Your task to perform on an android device: Show me recent news Image 0: 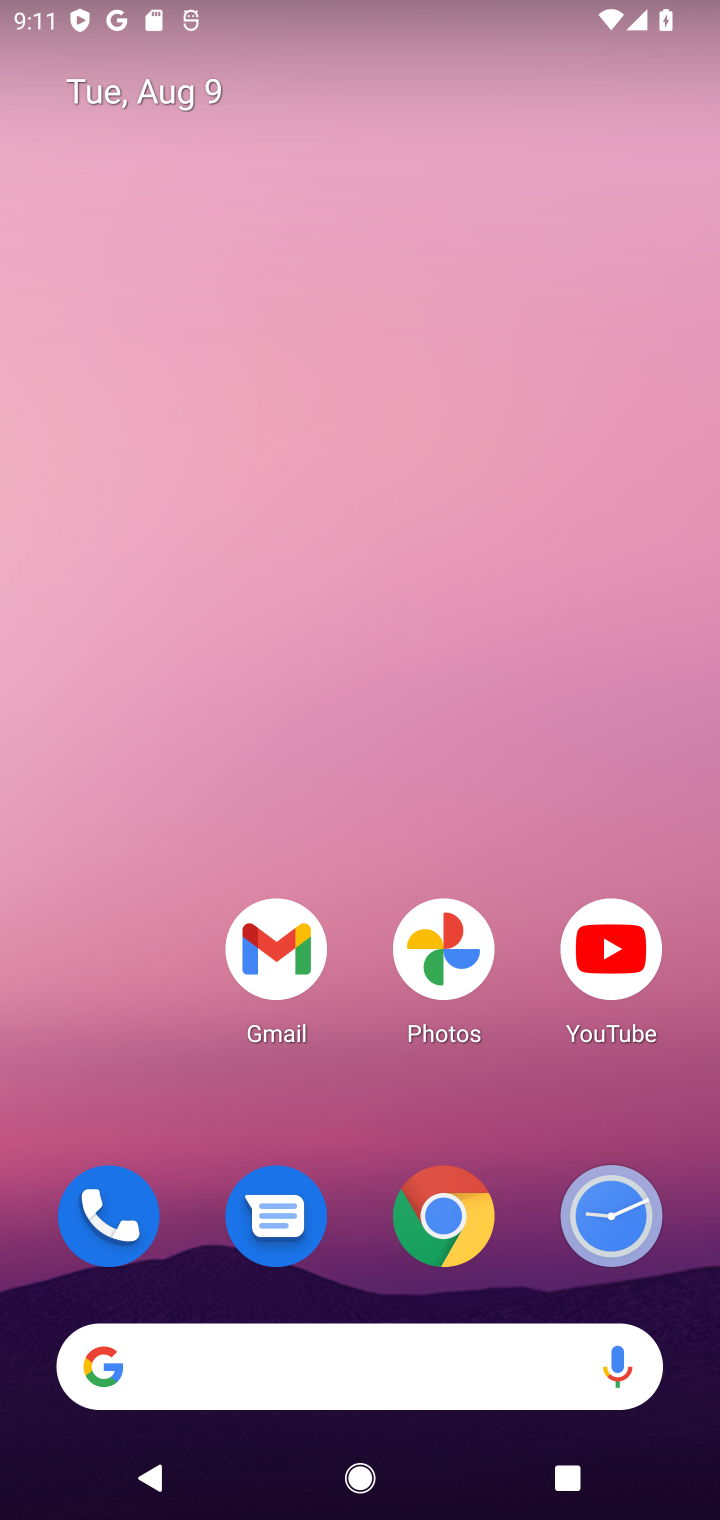
Step 0: drag from (353, 947) to (322, 643)
Your task to perform on an android device: Show me recent news Image 1: 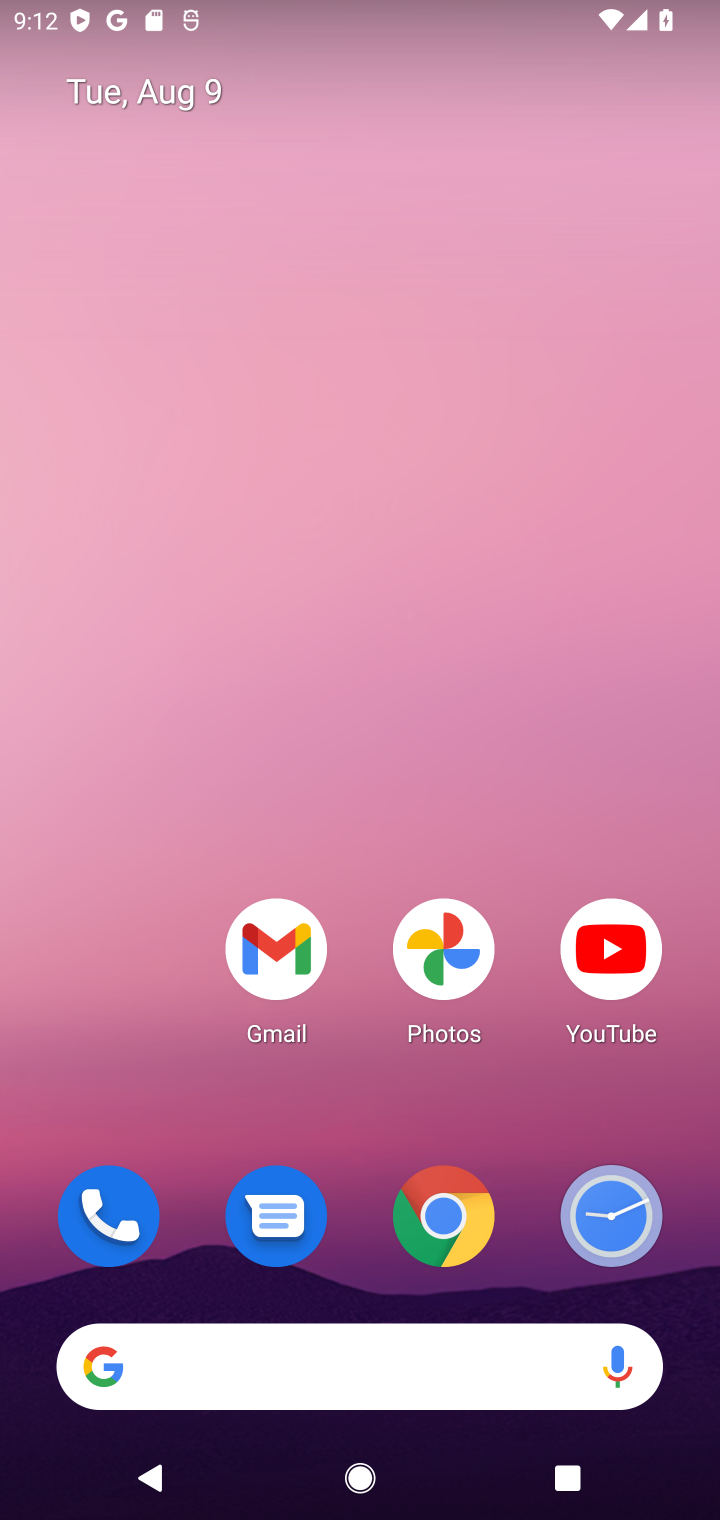
Step 1: drag from (252, 1135) to (230, 693)
Your task to perform on an android device: Show me recent news Image 2: 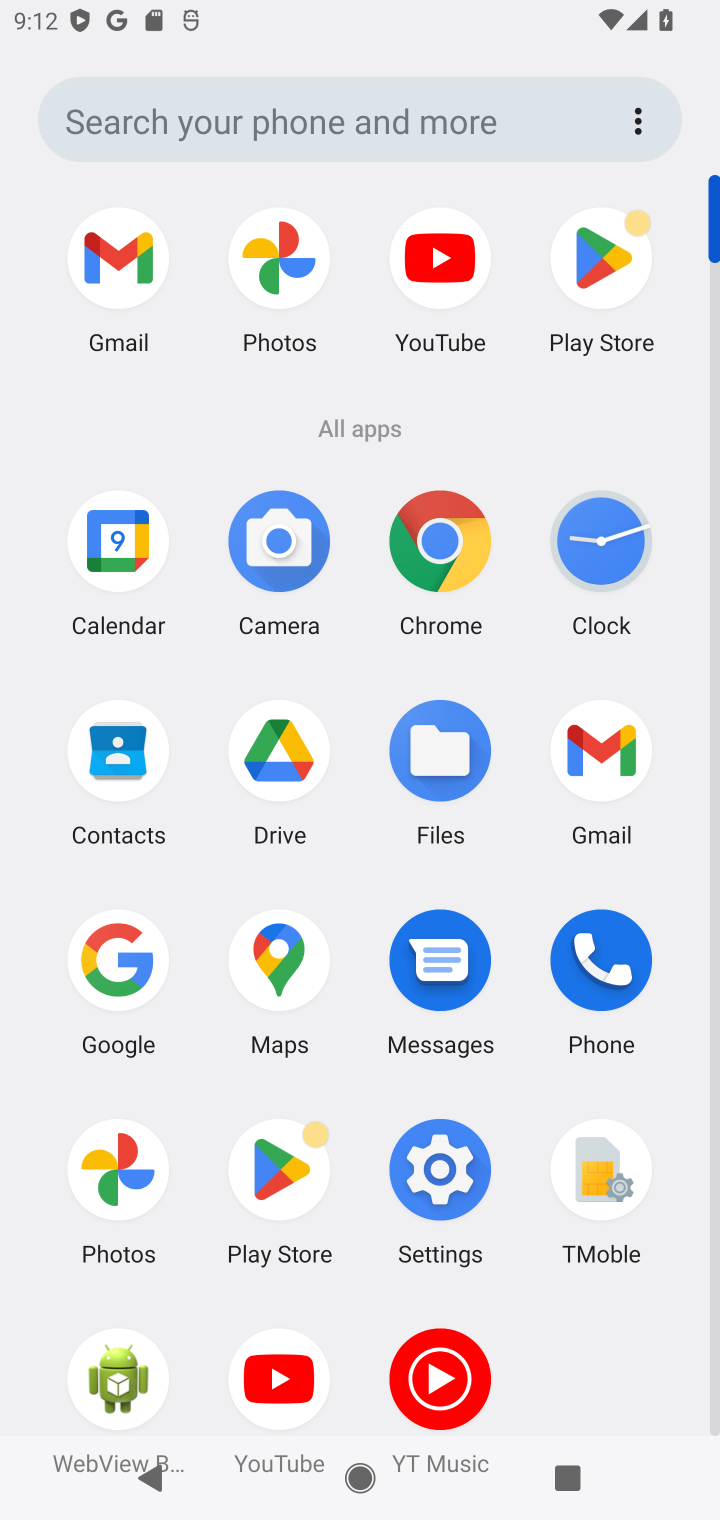
Step 2: click (104, 950)
Your task to perform on an android device: Show me recent news Image 3: 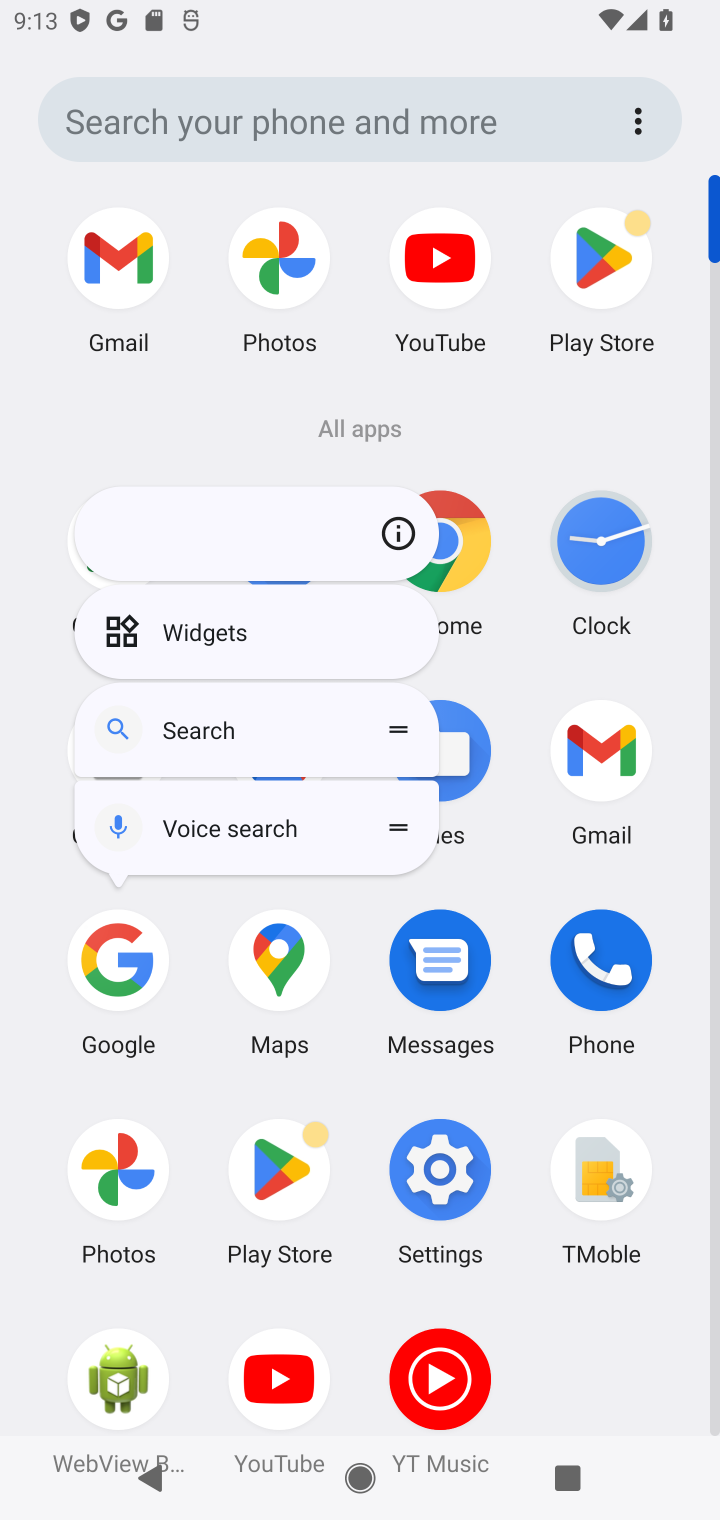
Step 3: click (117, 980)
Your task to perform on an android device: Show me recent news Image 4: 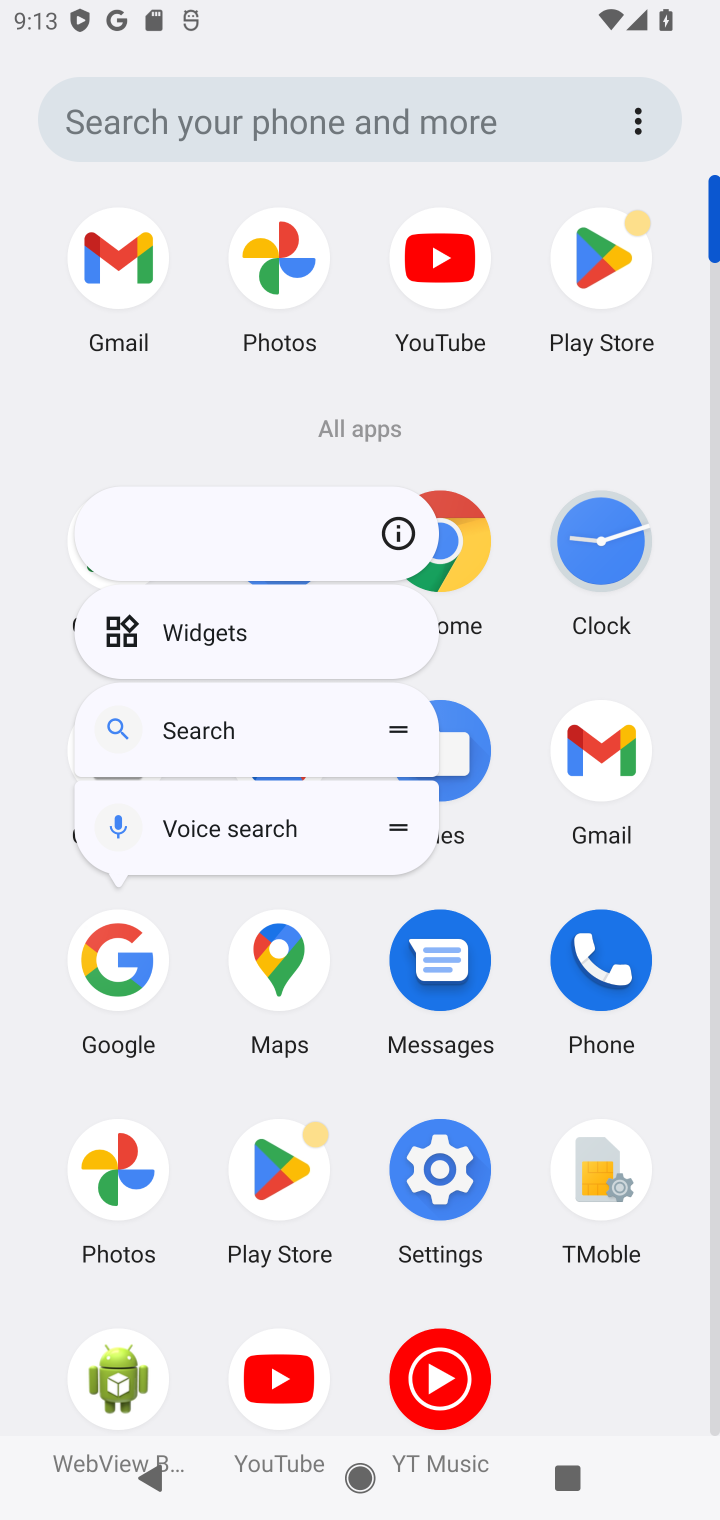
Step 4: click (115, 952)
Your task to perform on an android device: Show me recent news Image 5: 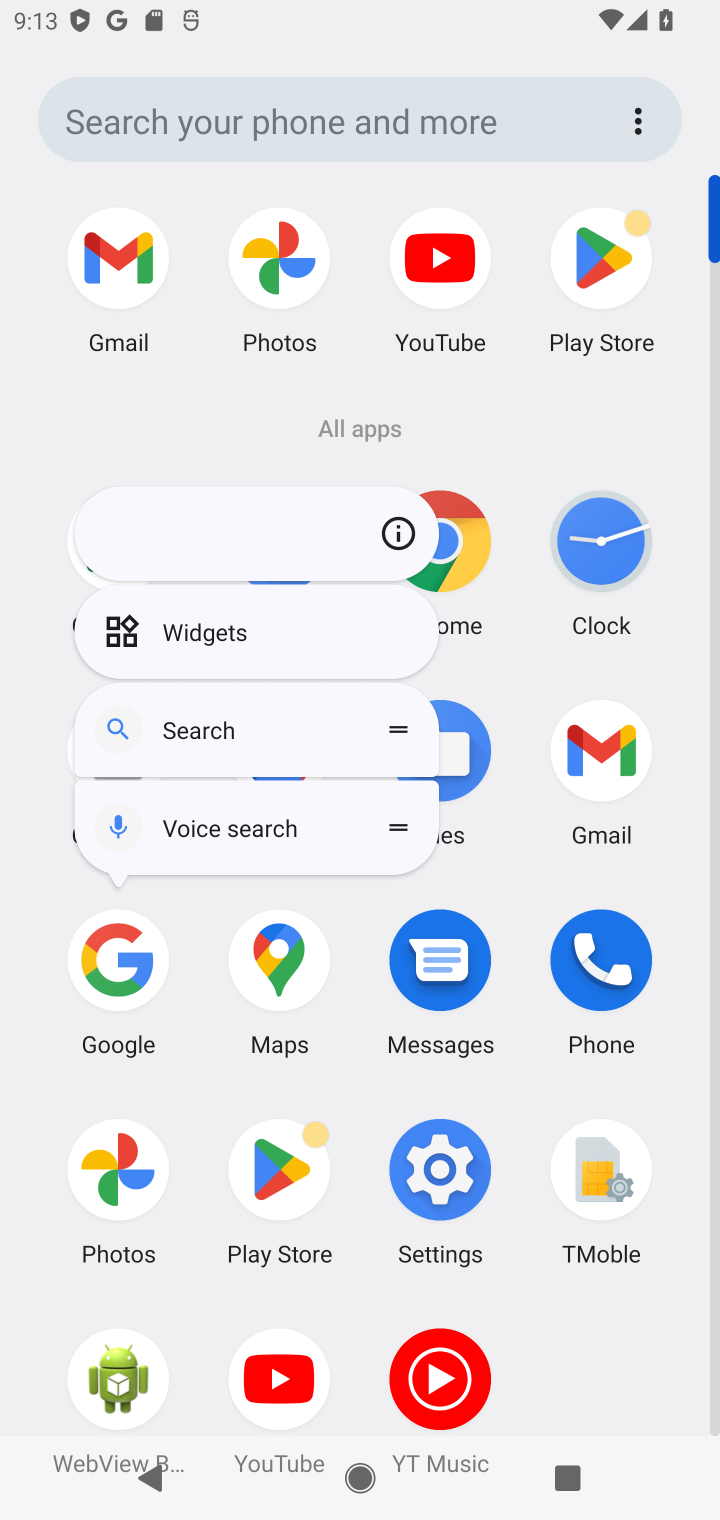
Step 5: click (115, 952)
Your task to perform on an android device: Show me recent news Image 6: 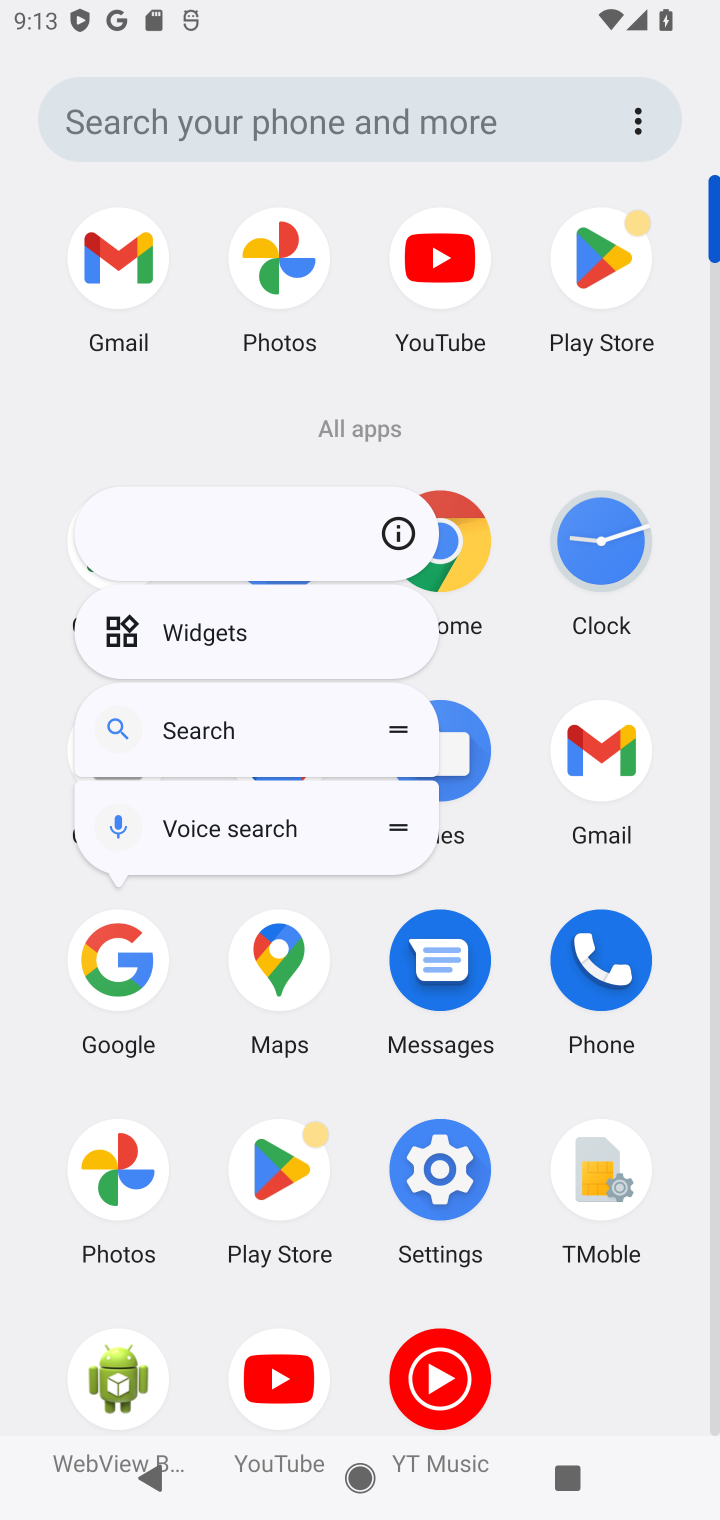
Step 6: click (115, 952)
Your task to perform on an android device: Show me recent news Image 7: 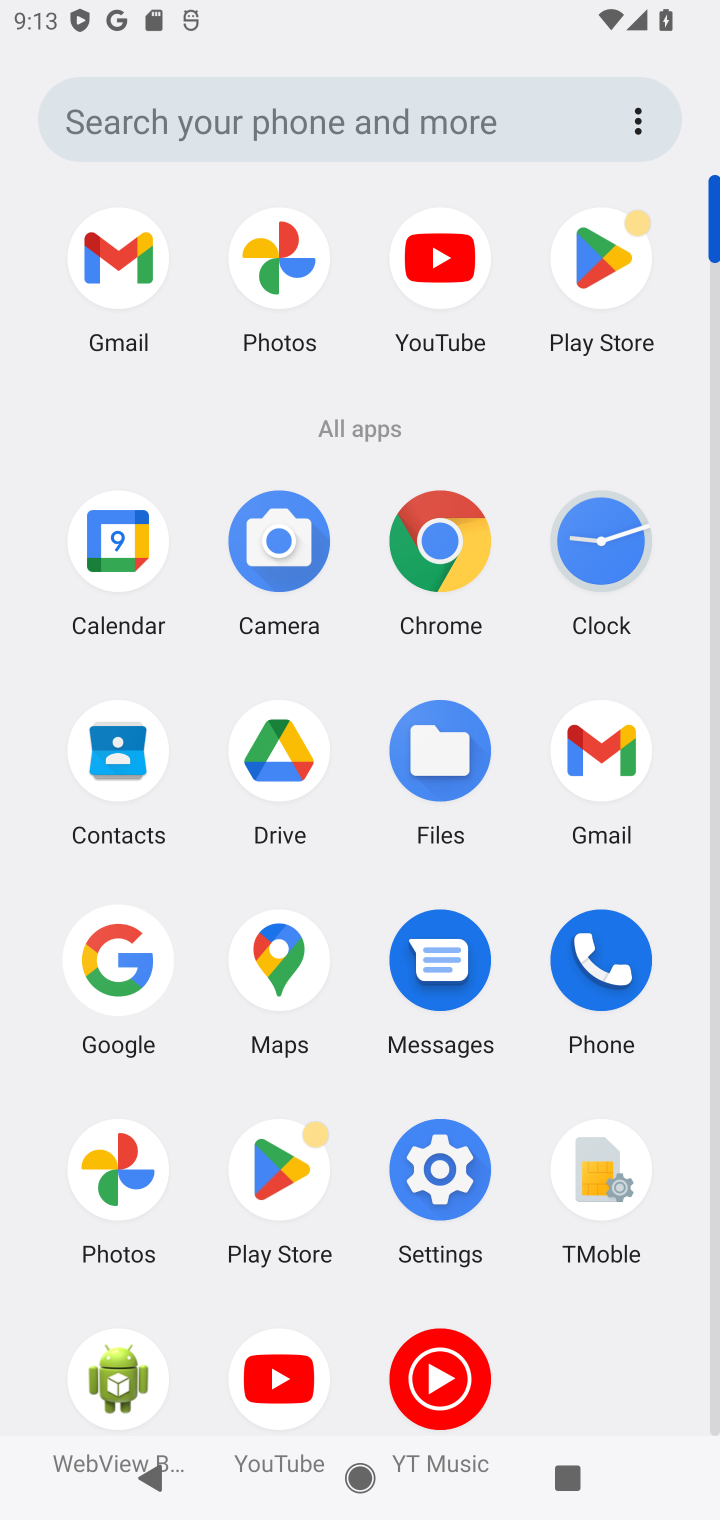
Step 7: click (120, 994)
Your task to perform on an android device: Show me recent news Image 8: 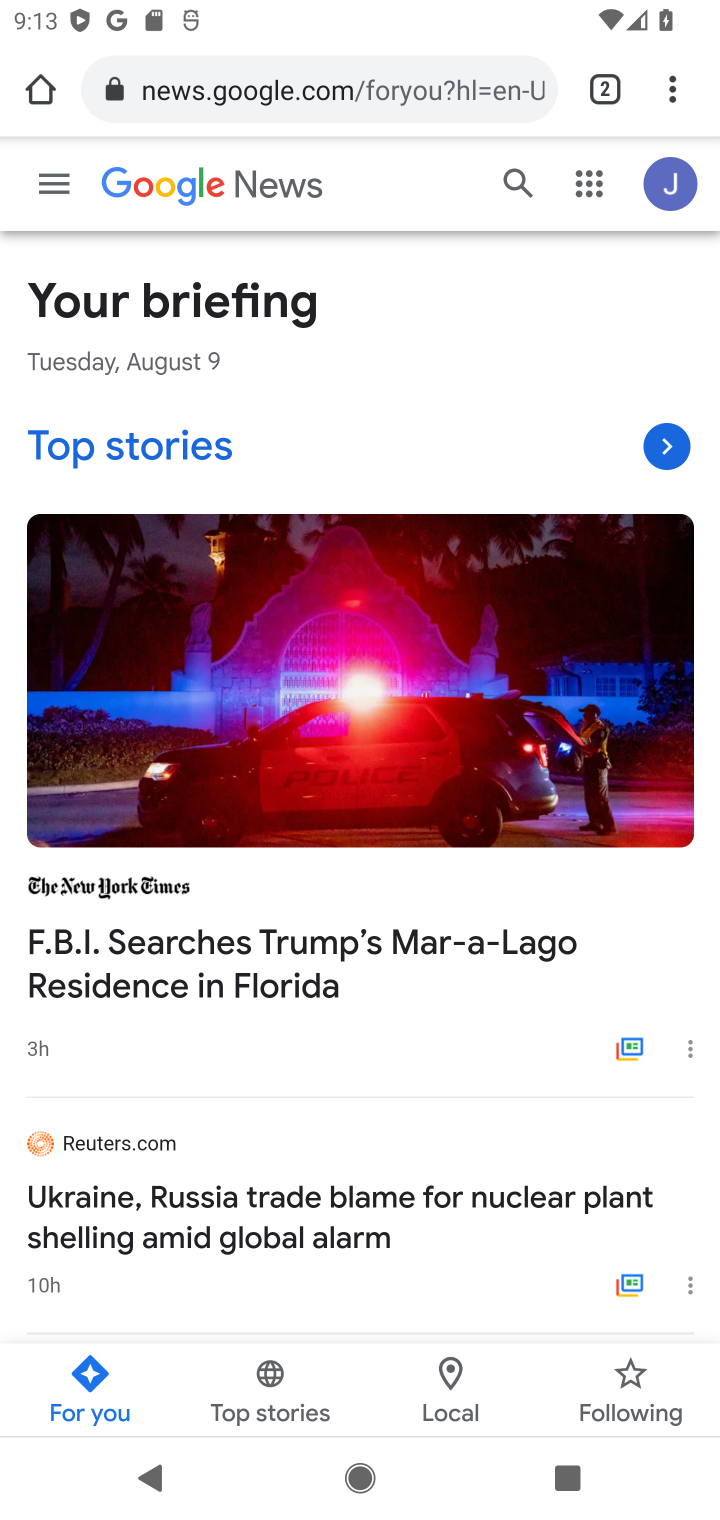
Step 8: task complete